Your task to perform on an android device: Search for vegetarian restaurants on Maps Image 0: 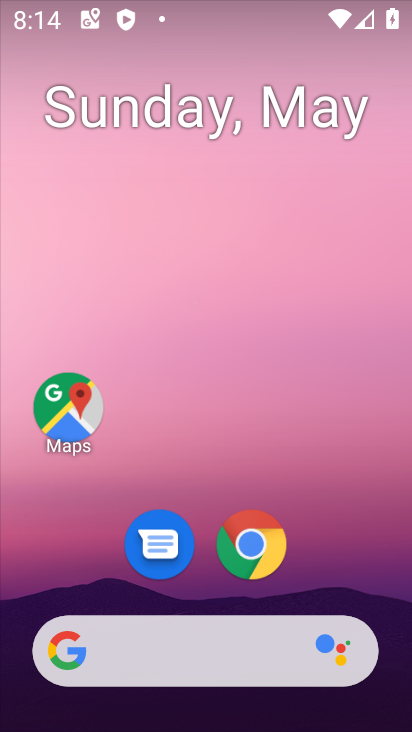
Step 0: drag from (344, 582) to (224, 36)
Your task to perform on an android device: Search for vegetarian restaurants on Maps Image 1: 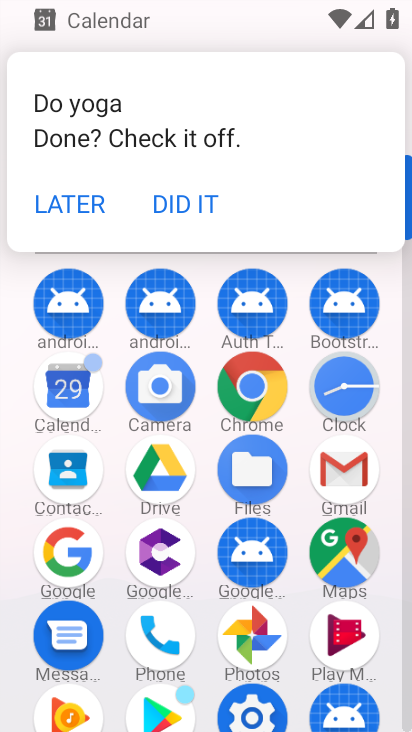
Step 1: click (87, 201)
Your task to perform on an android device: Search for vegetarian restaurants on Maps Image 2: 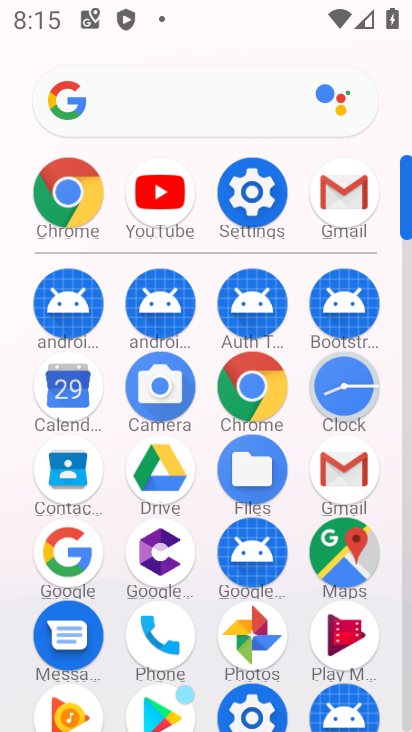
Step 2: drag from (5, 555) to (4, 235)
Your task to perform on an android device: Search for vegetarian restaurants on Maps Image 3: 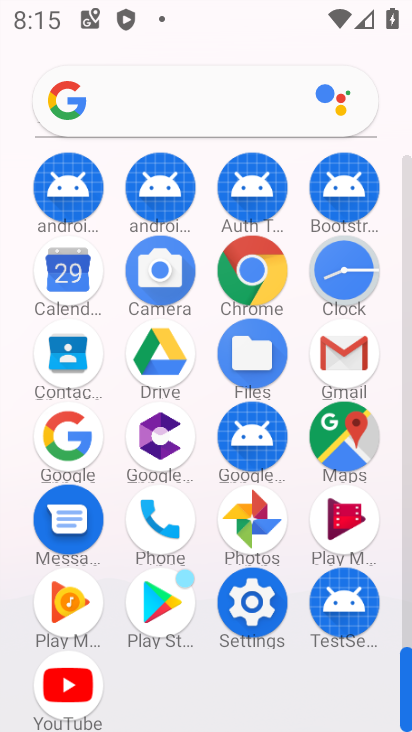
Step 3: click (343, 439)
Your task to perform on an android device: Search for vegetarian restaurants on Maps Image 4: 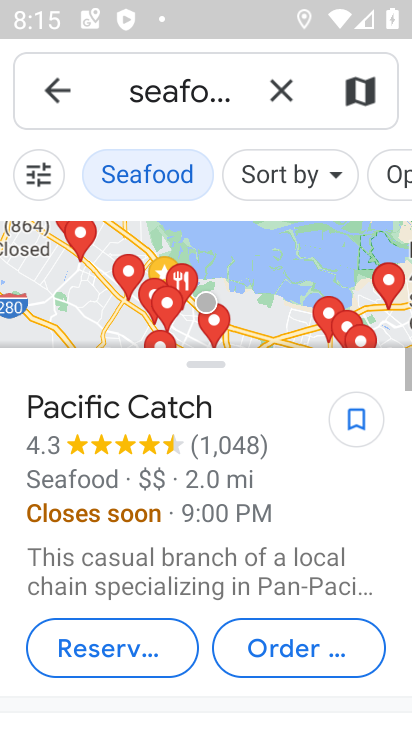
Step 4: click (274, 86)
Your task to perform on an android device: Search for vegetarian restaurants on Maps Image 5: 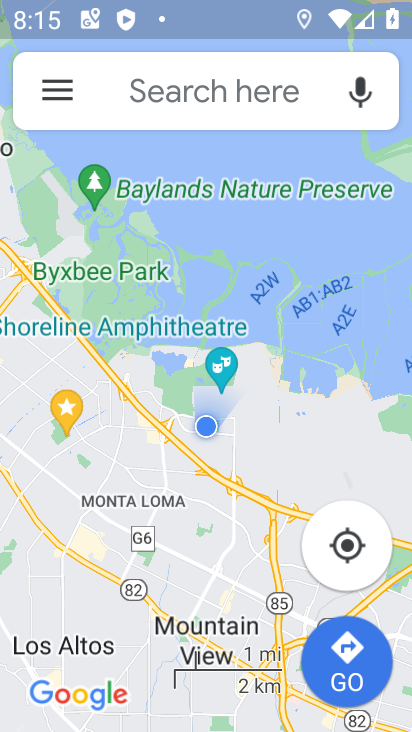
Step 5: click (129, 79)
Your task to perform on an android device: Search for vegetarian restaurants on Maps Image 6: 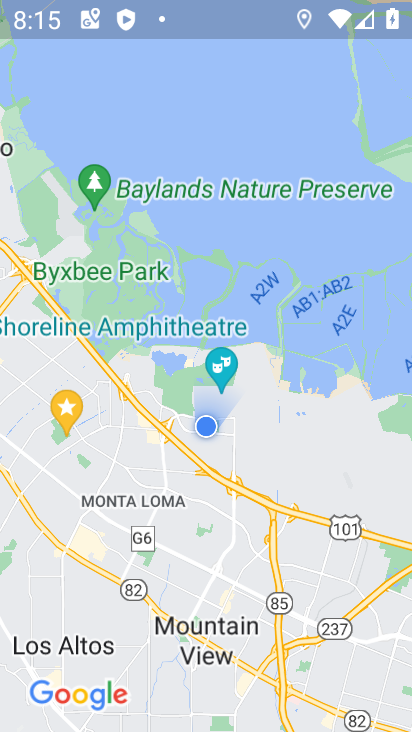
Step 6: drag from (220, 107) to (228, 307)
Your task to perform on an android device: Search for vegetarian restaurants on Maps Image 7: 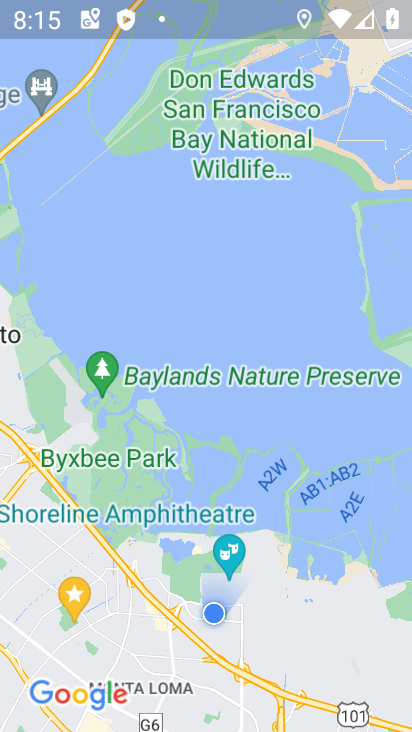
Step 7: click (227, 261)
Your task to perform on an android device: Search for vegetarian restaurants on Maps Image 8: 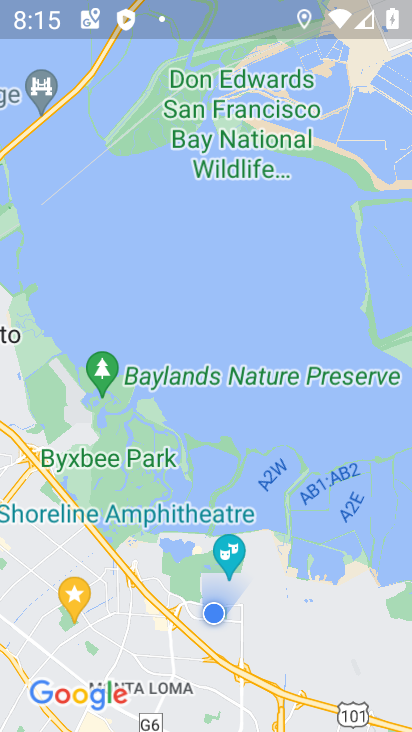
Step 8: click (227, 141)
Your task to perform on an android device: Search for vegetarian restaurants on Maps Image 9: 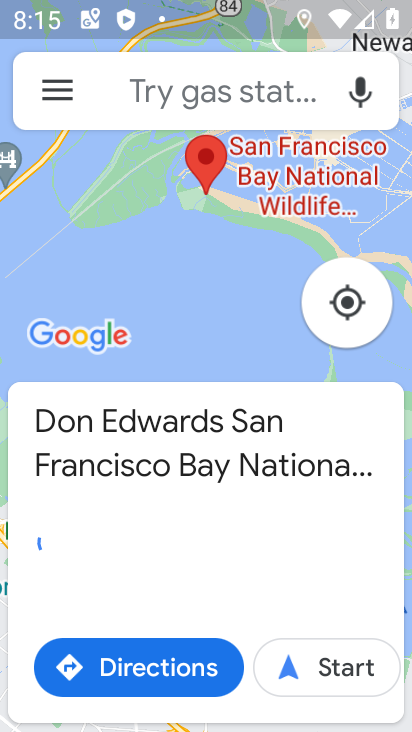
Step 9: click (119, 85)
Your task to perform on an android device: Search for vegetarian restaurants on Maps Image 10: 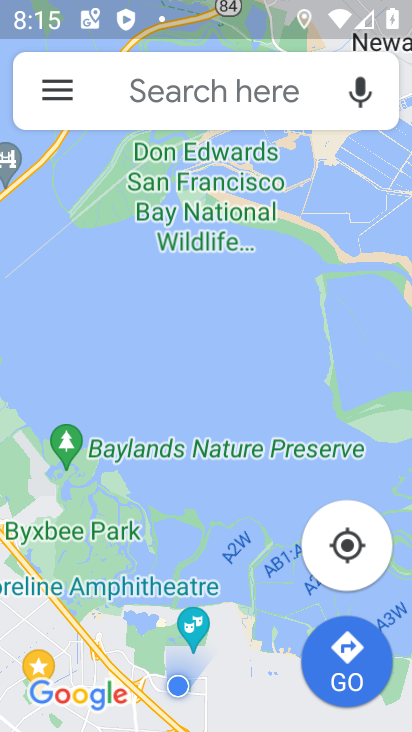
Step 10: click (124, 88)
Your task to perform on an android device: Search for vegetarian restaurants on Maps Image 11: 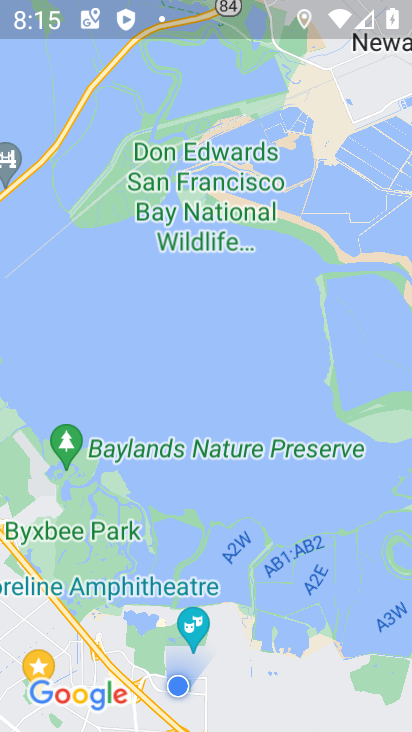
Step 11: click (149, 101)
Your task to perform on an android device: Search for vegetarian restaurants on Maps Image 12: 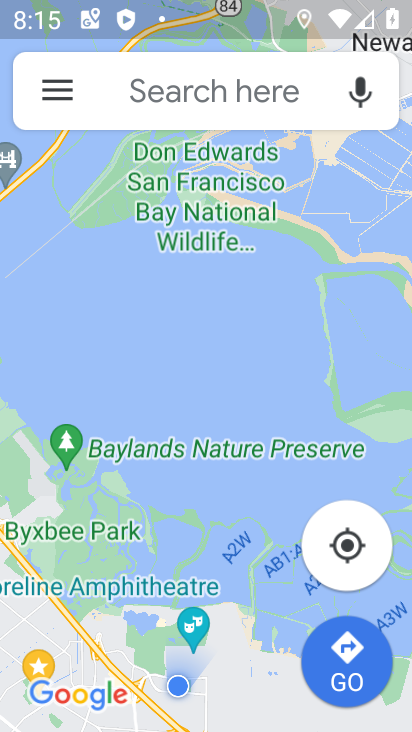
Step 12: click (201, 93)
Your task to perform on an android device: Search for vegetarian restaurants on Maps Image 13: 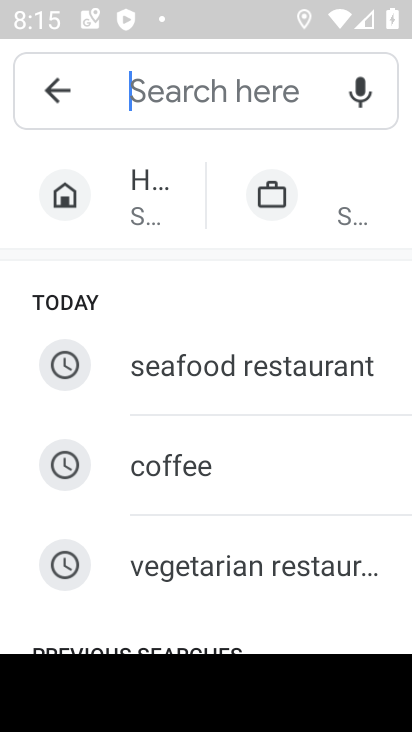
Step 13: click (265, 554)
Your task to perform on an android device: Search for vegetarian restaurants on Maps Image 14: 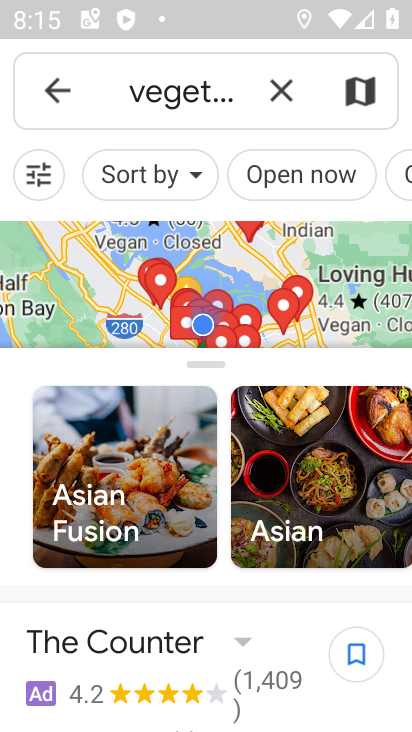
Step 14: task complete